Your task to perform on an android device: turn on the 24-hour format for clock Image 0: 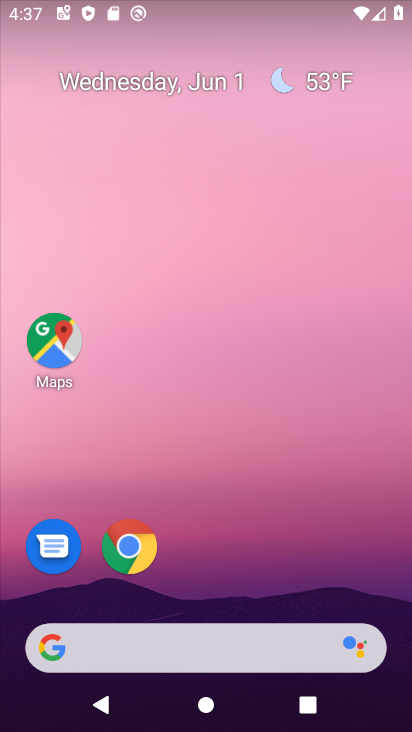
Step 0: drag from (265, 534) to (148, 64)
Your task to perform on an android device: turn on the 24-hour format for clock Image 1: 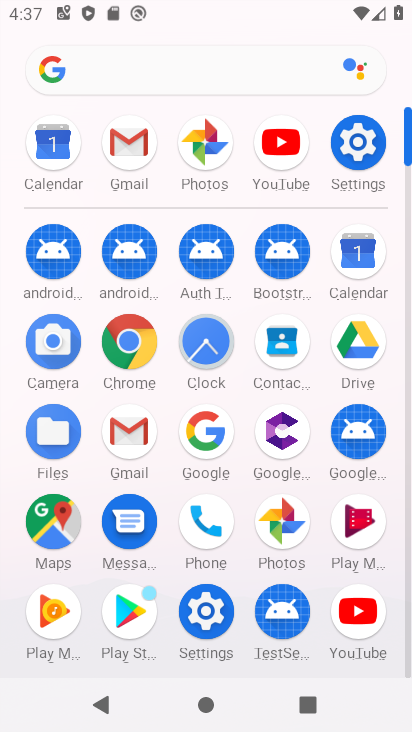
Step 1: click (207, 343)
Your task to perform on an android device: turn on the 24-hour format for clock Image 2: 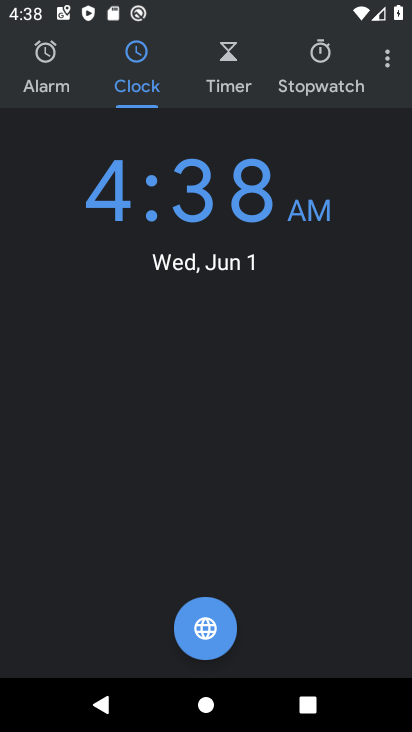
Step 2: click (388, 67)
Your task to perform on an android device: turn on the 24-hour format for clock Image 3: 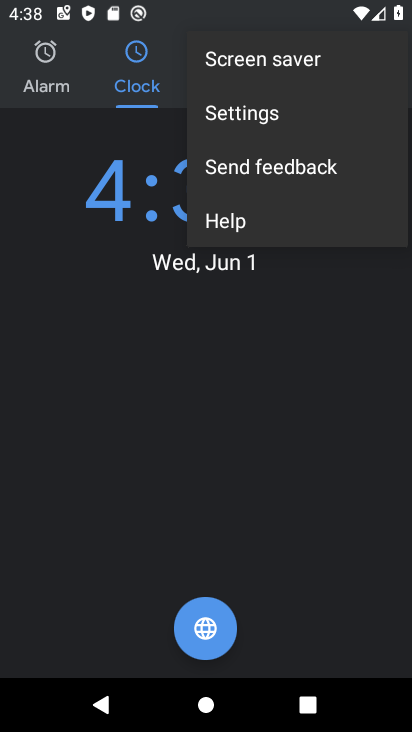
Step 3: click (254, 113)
Your task to perform on an android device: turn on the 24-hour format for clock Image 4: 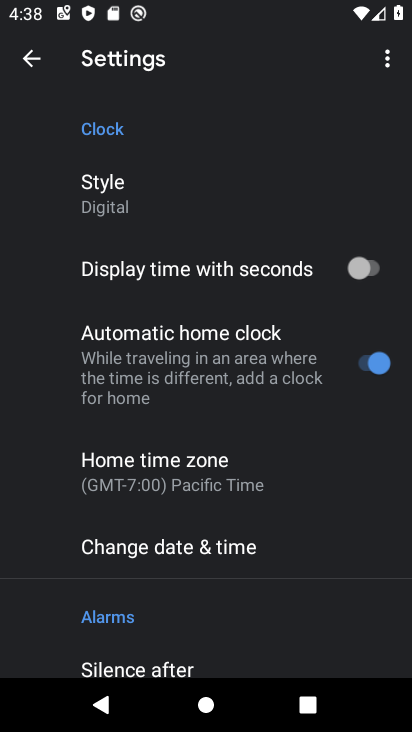
Step 4: click (202, 548)
Your task to perform on an android device: turn on the 24-hour format for clock Image 5: 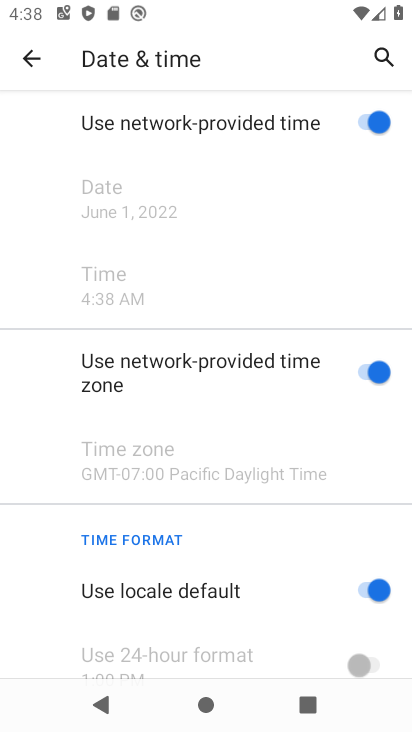
Step 5: click (372, 594)
Your task to perform on an android device: turn on the 24-hour format for clock Image 6: 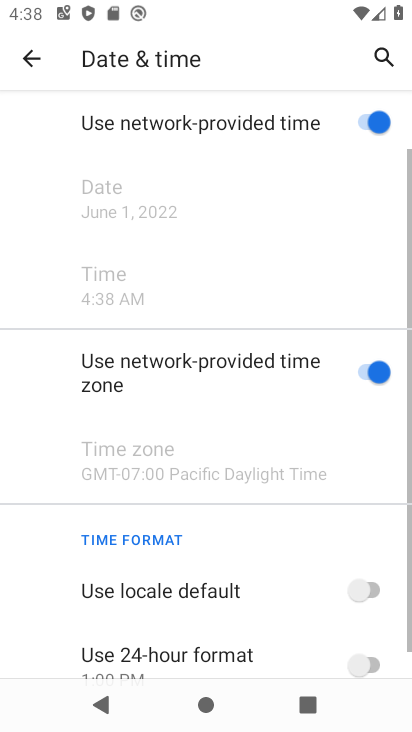
Step 6: click (354, 664)
Your task to perform on an android device: turn on the 24-hour format for clock Image 7: 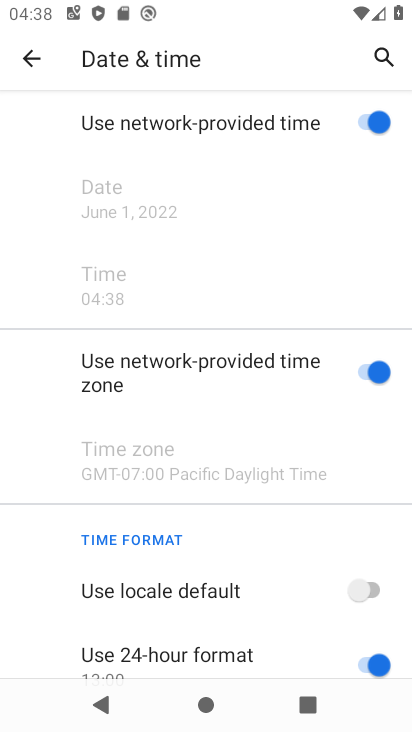
Step 7: task complete